Your task to perform on an android device: turn off picture-in-picture Image 0: 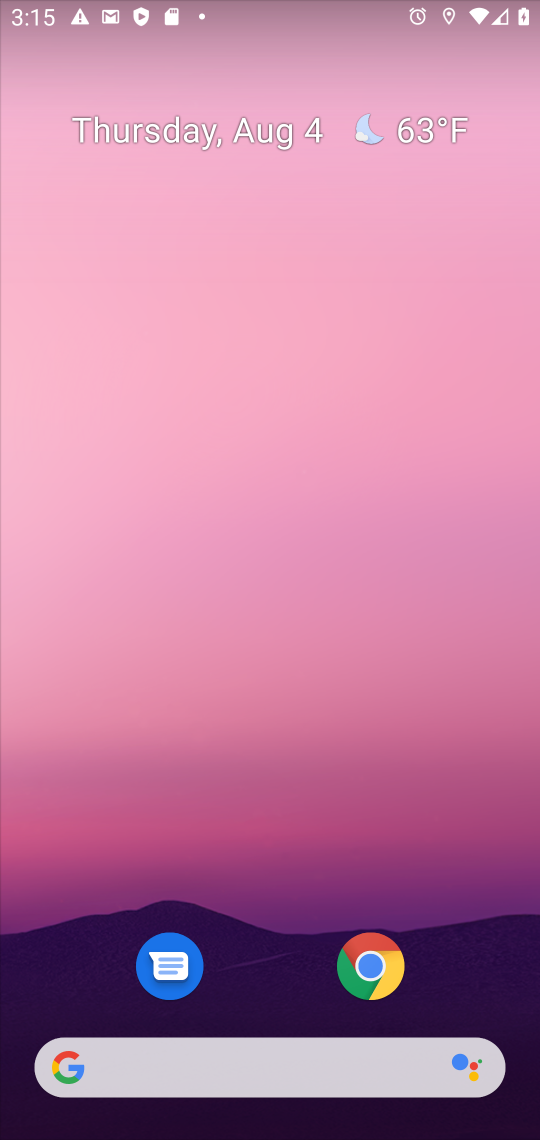
Step 0: click (372, 980)
Your task to perform on an android device: turn off picture-in-picture Image 1: 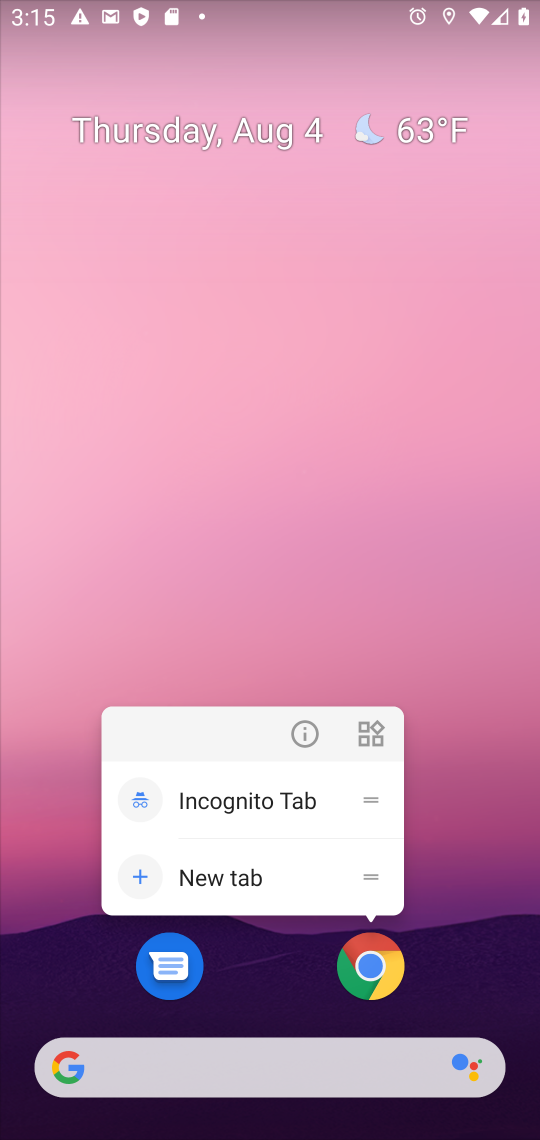
Step 1: click (297, 724)
Your task to perform on an android device: turn off picture-in-picture Image 2: 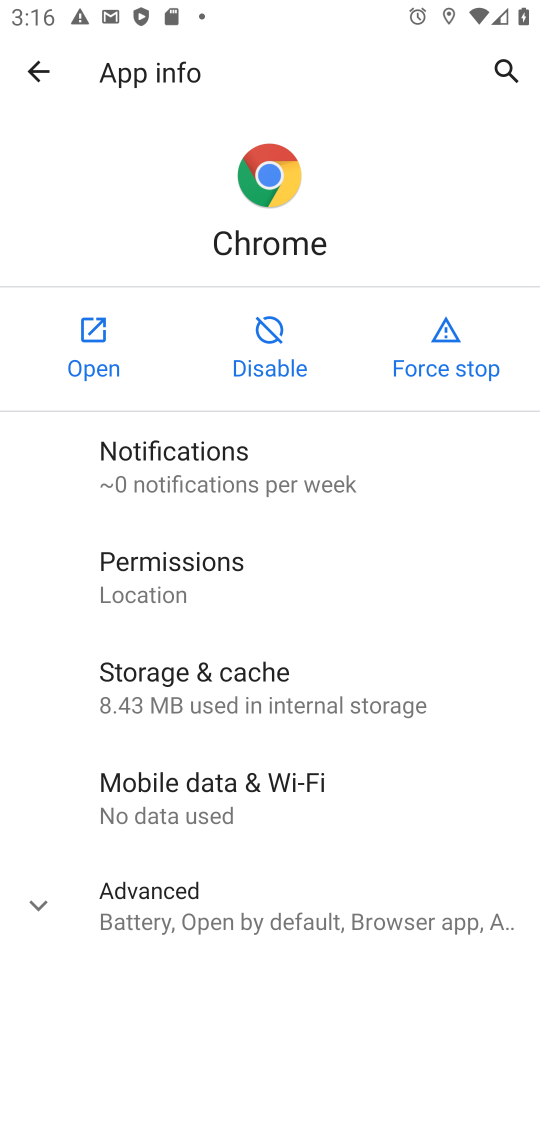
Step 2: click (178, 930)
Your task to perform on an android device: turn off picture-in-picture Image 3: 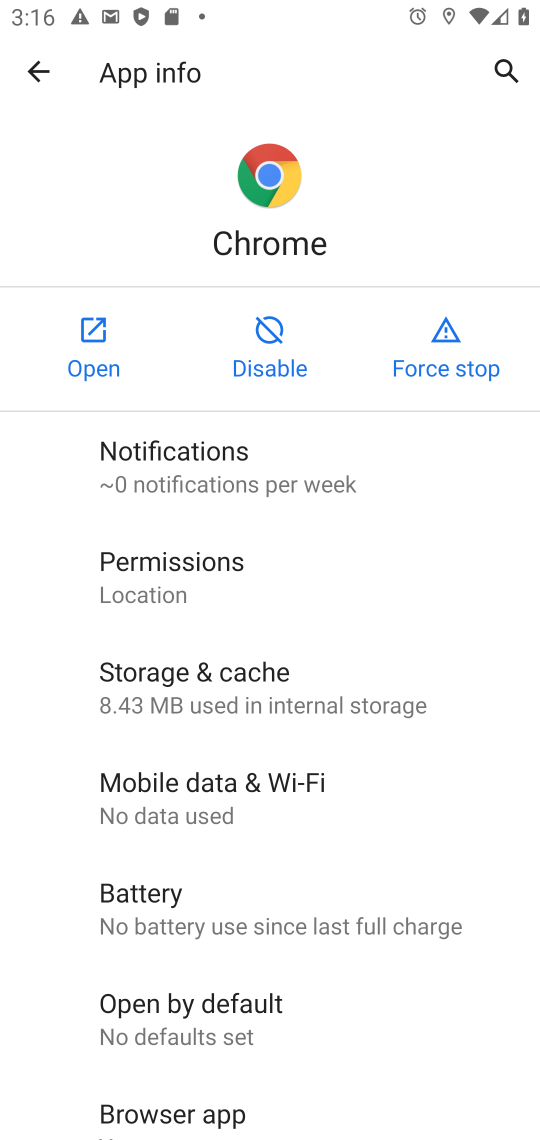
Step 3: drag from (439, 1008) to (404, 394)
Your task to perform on an android device: turn off picture-in-picture Image 4: 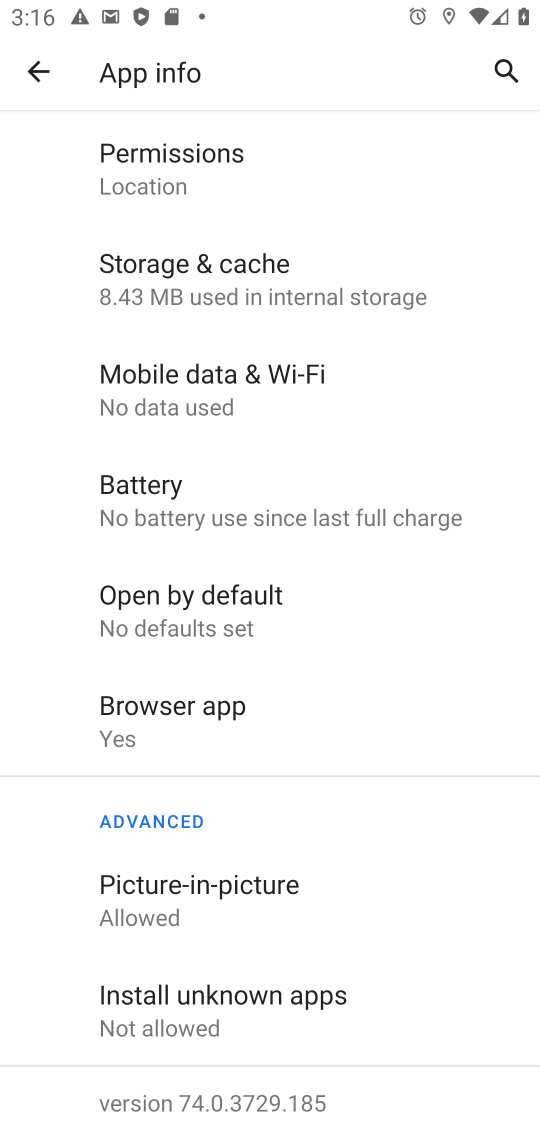
Step 4: click (162, 898)
Your task to perform on an android device: turn off picture-in-picture Image 5: 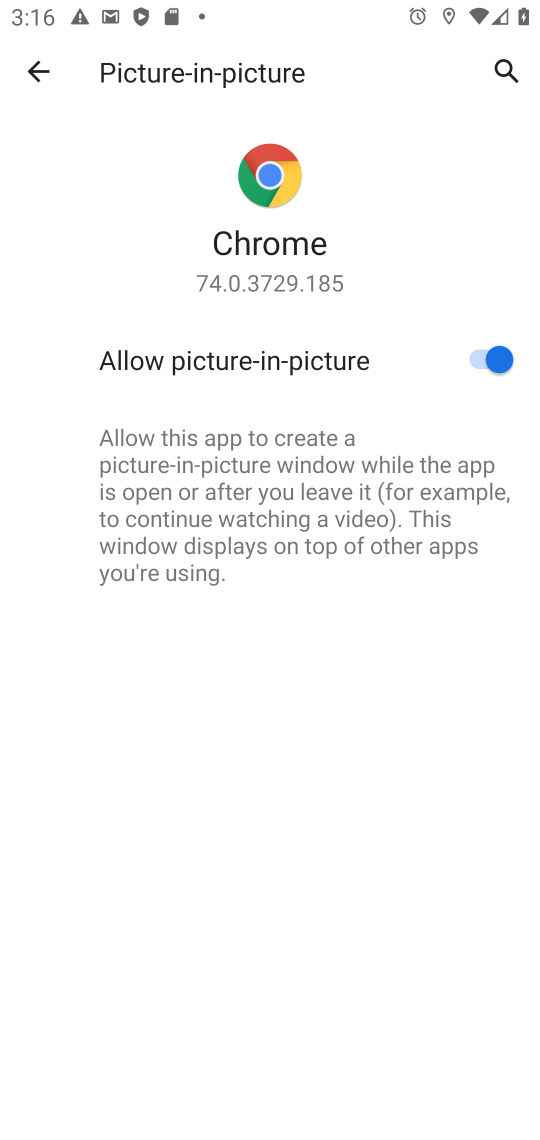
Step 5: click (499, 362)
Your task to perform on an android device: turn off picture-in-picture Image 6: 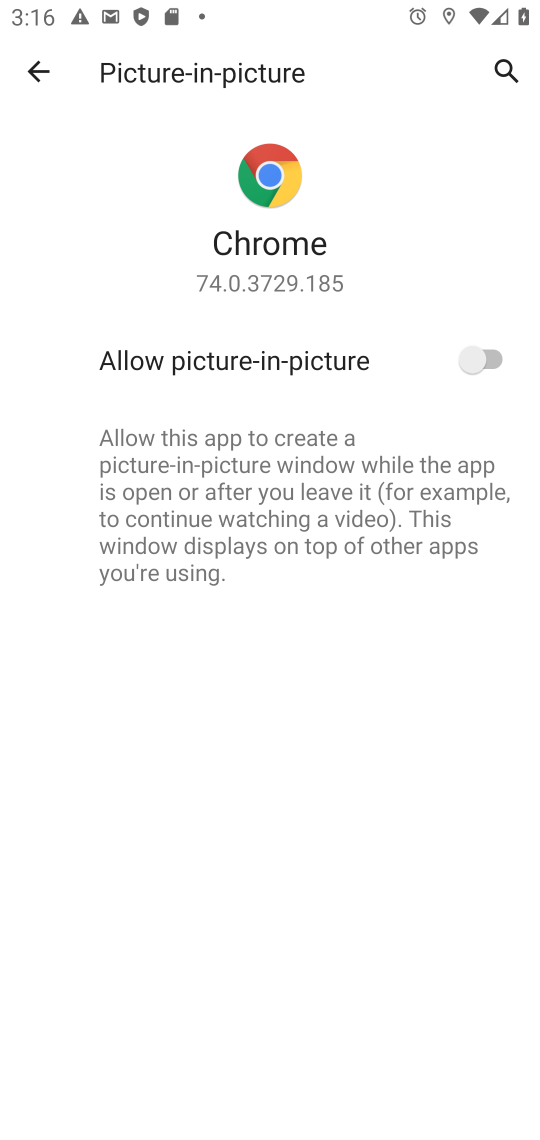
Step 6: task complete